Your task to perform on an android device: Open Google Chrome and open the bookmarks view Image 0: 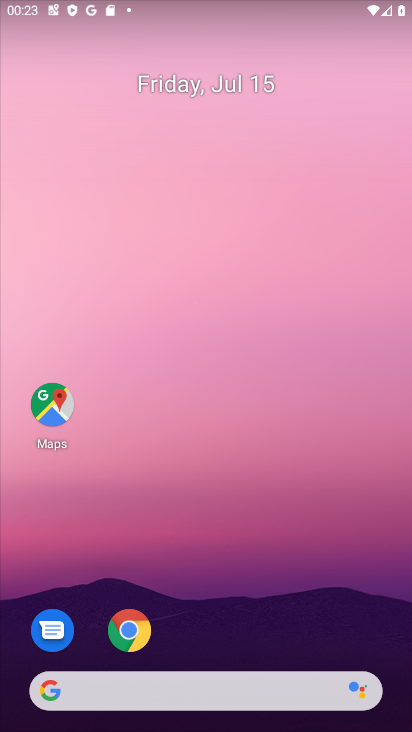
Step 0: click (135, 614)
Your task to perform on an android device: Open Google Chrome and open the bookmarks view Image 1: 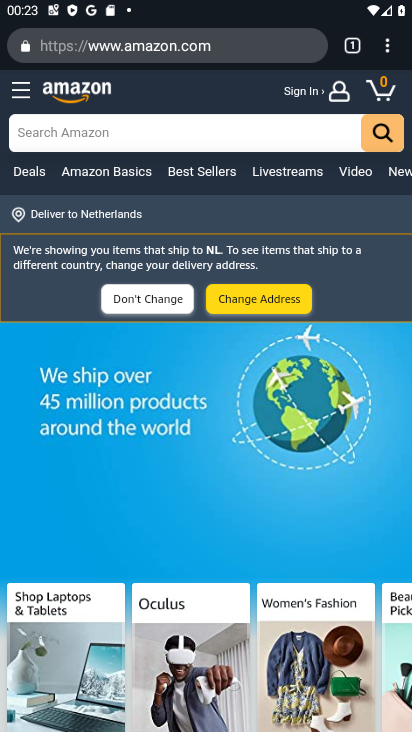
Step 1: click (385, 54)
Your task to perform on an android device: Open Google Chrome and open the bookmarks view Image 2: 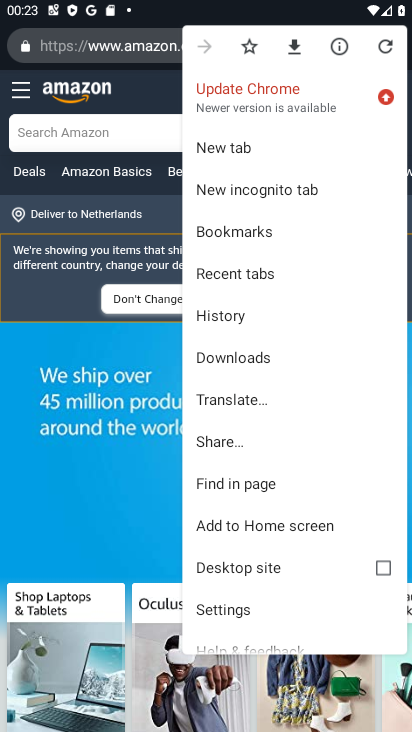
Step 2: click (283, 222)
Your task to perform on an android device: Open Google Chrome and open the bookmarks view Image 3: 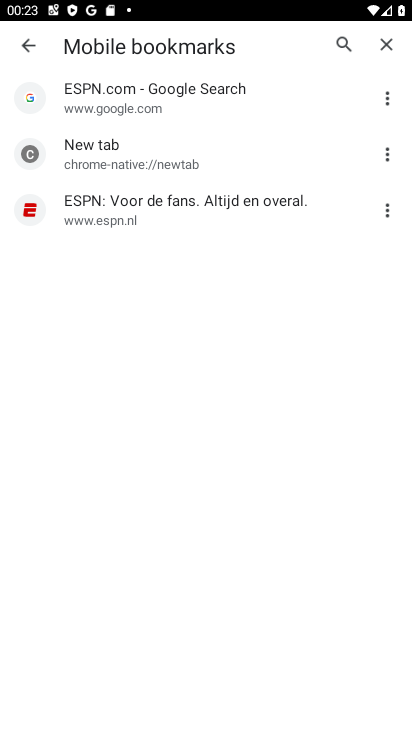
Step 3: task complete